Your task to perform on an android device: turn off notifications settings in the gmail app Image 0: 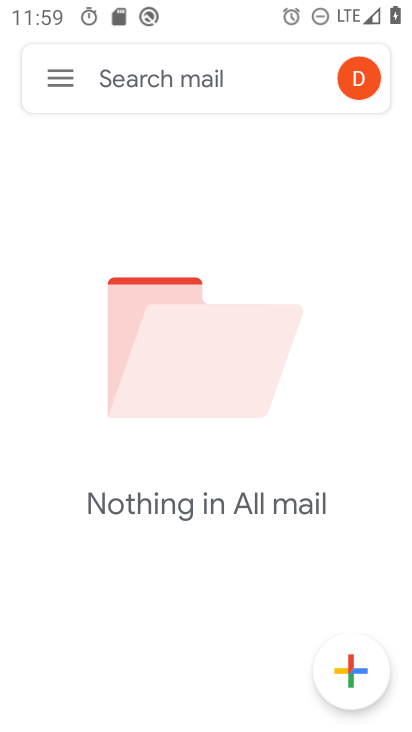
Step 0: click (65, 67)
Your task to perform on an android device: turn off notifications settings in the gmail app Image 1: 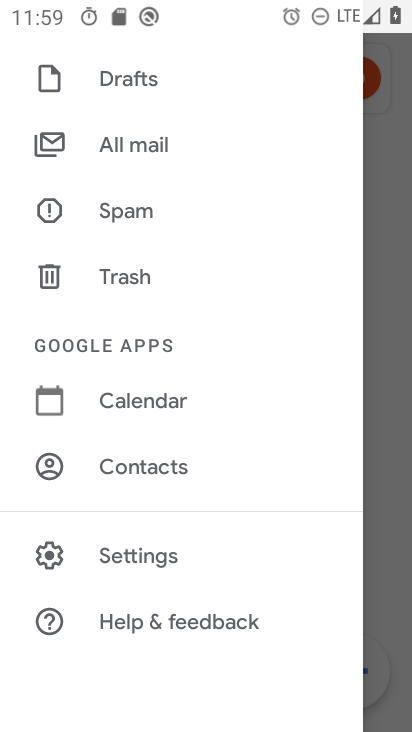
Step 1: click (135, 560)
Your task to perform on an android device: turn off notifications settings in the gmail app Image 2: 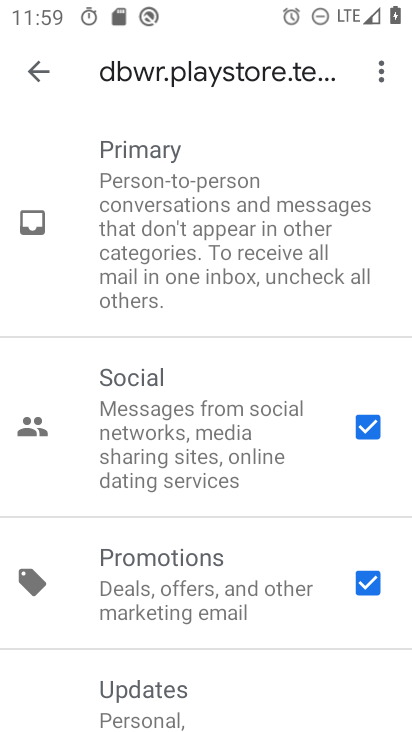
Step 2: click (34, 69)
Your task to perform on an android device: turn off notifications settings in the gmail app Image 3: 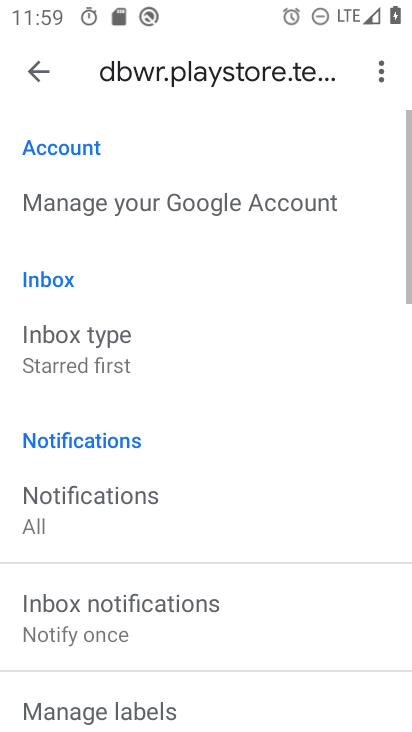
Step 3: drag from (212, 585) to (210, 204)
Your task to perform on an android device: turn off notifications settings in the gmail app Image 4: 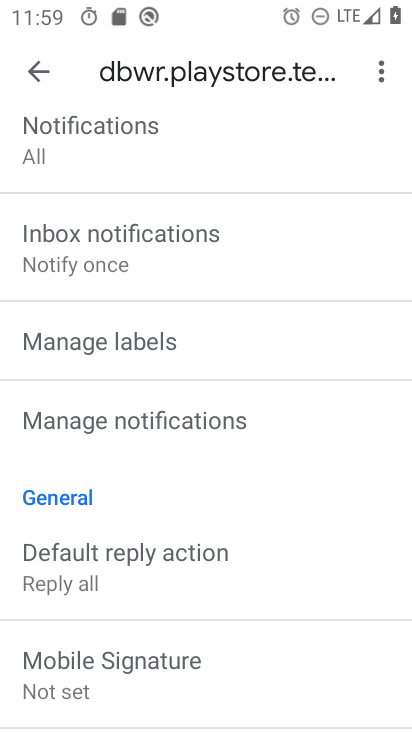
Step 4: click (147, 424)
Your task to perform on an android device: turn off notifications settings in the gmail app Image 5: 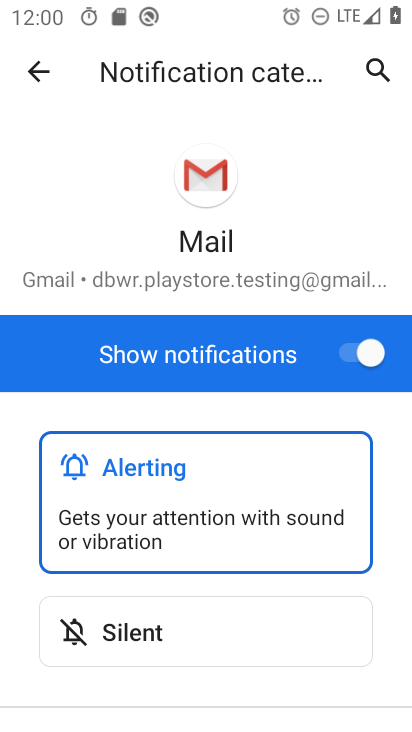
Step 5: click (368, 350)
Your task to perform on an android device: turn off notifications settings in the gmail app Image 6: 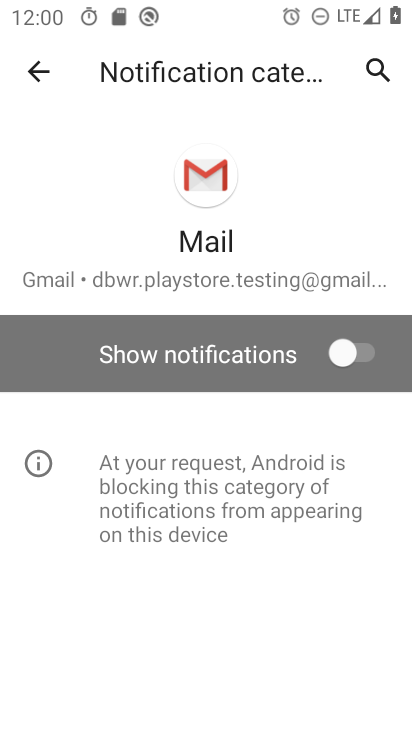
Step 6: task complete